Your task to perform on an android device: turn on improve location accuracy Image 0: 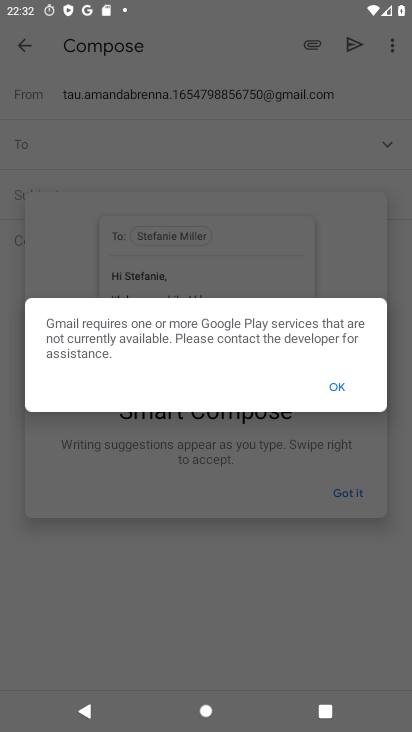
Step 0: press home button
Your task to perform on an android device: turn on improve location accuracy Image 1: 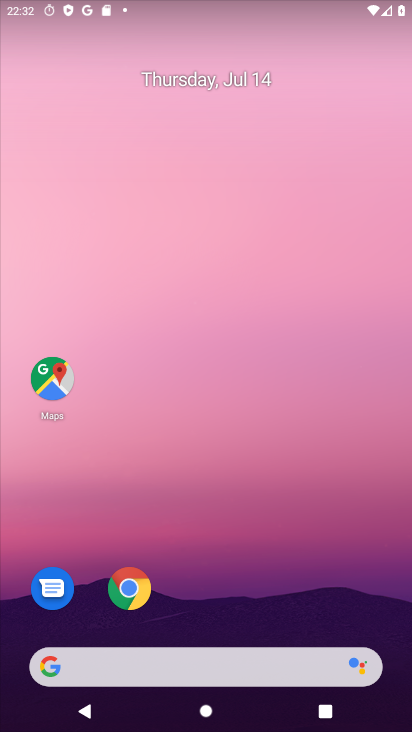
Step 1: drag from (249, 622) to (275, 151)
Your task to perform on an android device: turn on improve location accuracy Image 2: 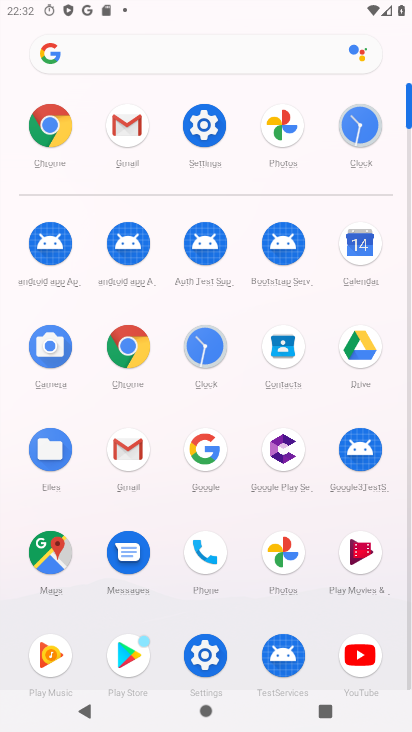
Step 2: click (209, 125)
Your task to perform on an android device: turn on improve location accuracy Image 3: 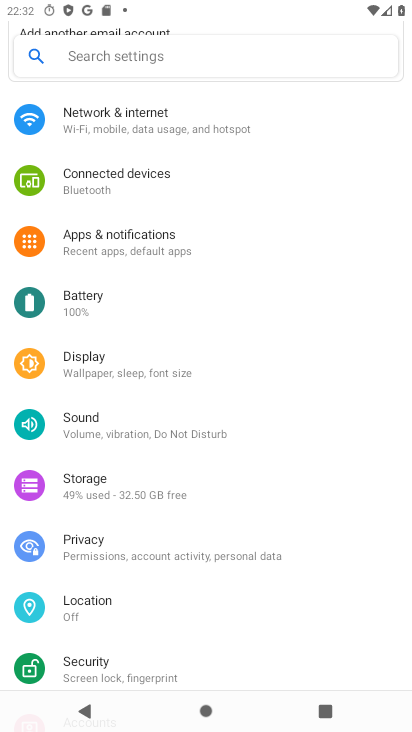
Step 3: click (104, 602)
Your task to perform on an android device: turn on improve location accuracy Image 4: 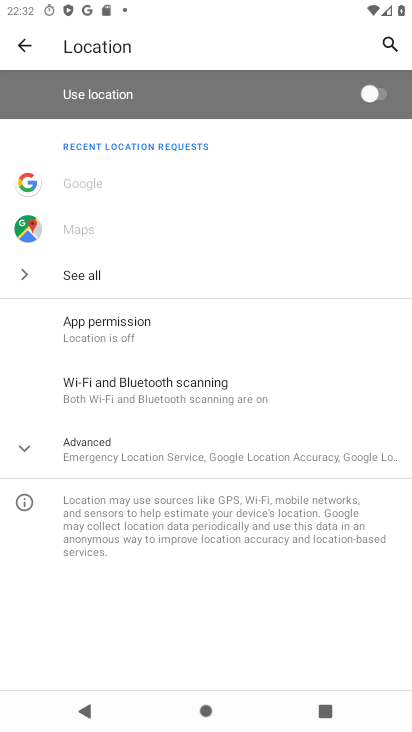
Step 4: click (84, 449)
Your task to perform on an android device: turn on improve location accuracy Image 5: 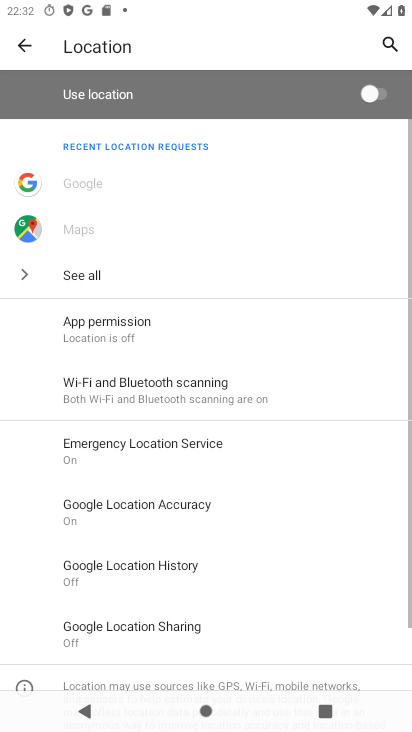
Step 5: click (171, 513)
Your task to perform on an android device: turn on improve location accuracy Image 6: 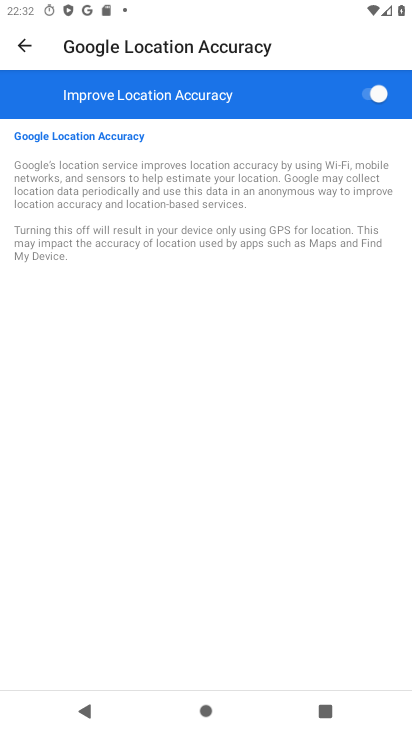
Step 6: task complete